Your task to perform on an android device: turn on improve location accuracy Image 0: 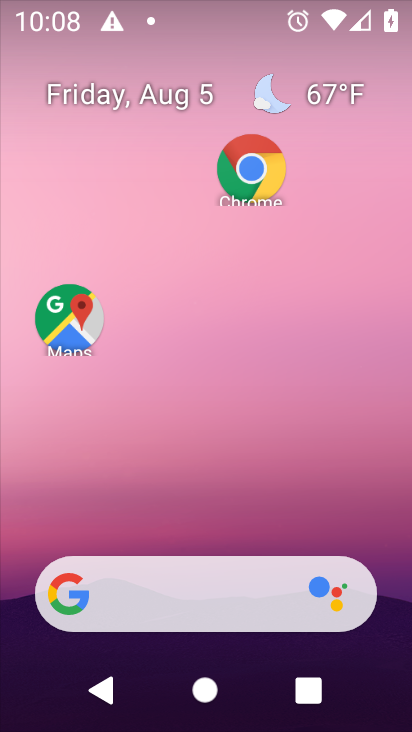
Step 0: drag from (203, 519) to (170, 148)
Your task to perform on an android device: turn on improve location accuracy Image 1: 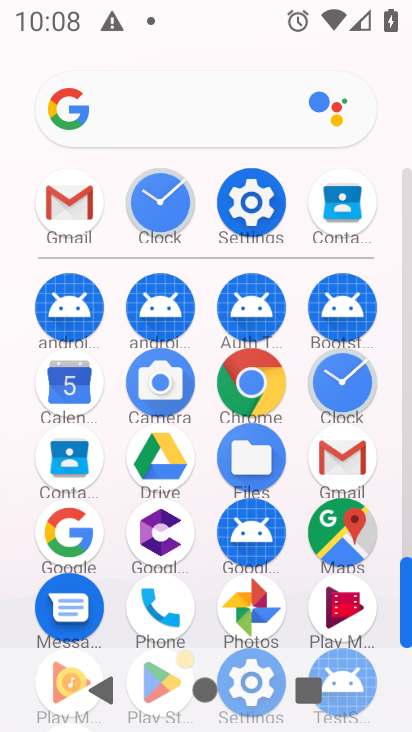
Step 1: click (243, 216)
Your task to perform on an android device: turn on improve location accuracy Image 2: 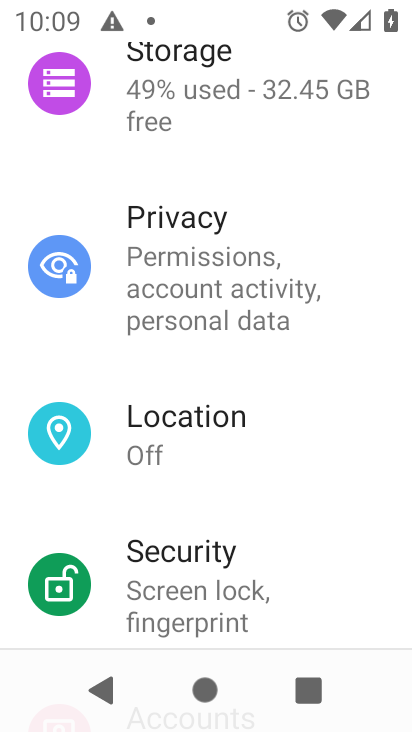
Step 2: click (200, 415)
Your task to perform on an android device: turn on improve location accuracy Image 3: 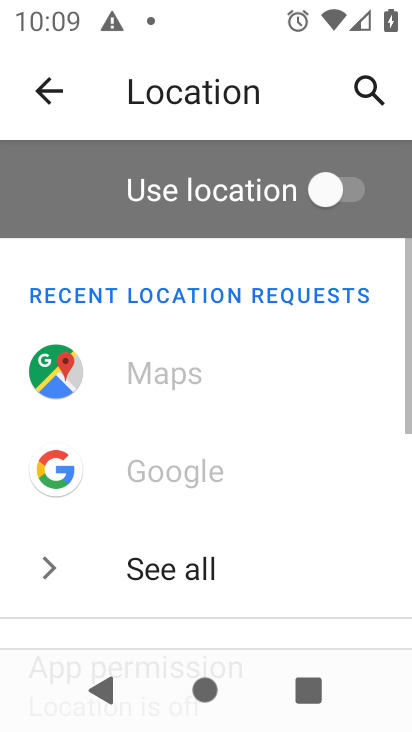
Step 3: drag from (238, 539) to (211, 122)
Your task to perform on an android device: turn on improve location accuracy Image 4: 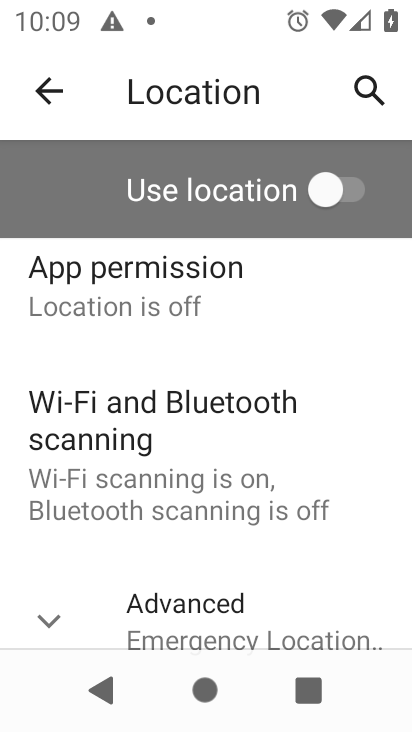
Step 4: drag from (216, 563) to (193, 358)
Your task to perform on an android device: turn on improve location accuracy Image 5: 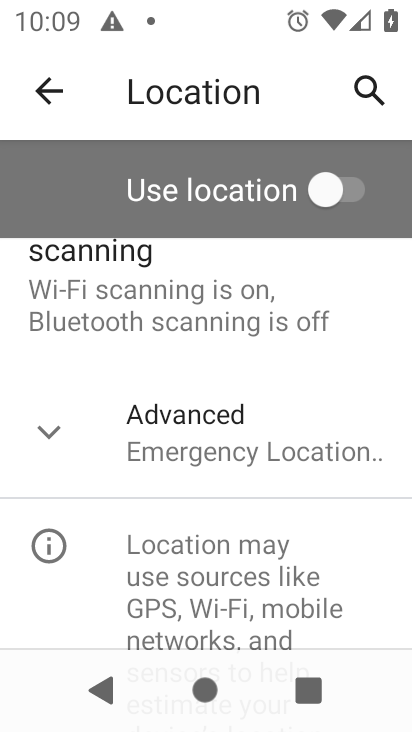
Step 5: click (194, 422)
Your task to perform on an android device: turn on improve location accuracy Image 6: 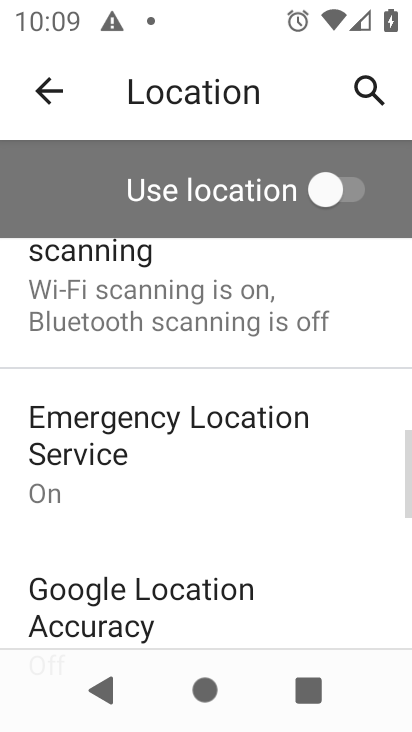
Step 6: drag from (192, 536) to (227, 295)
Your task to perform on an android device: turn on improve location accuracy Image 7: 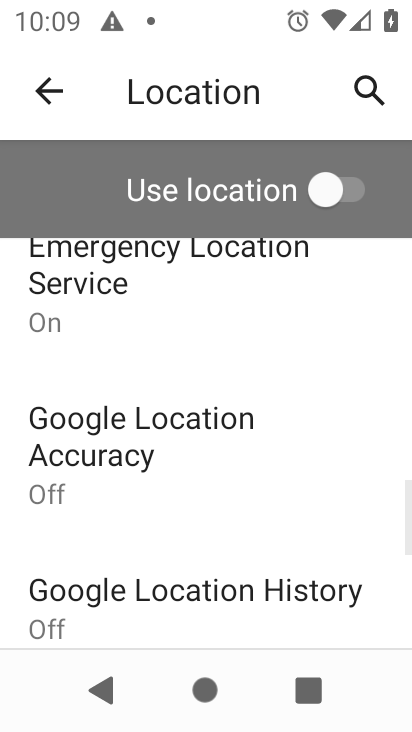
Step 7: click (198, 453)
Your task to perform on an android device: turn on improve location accuracy Image 8: 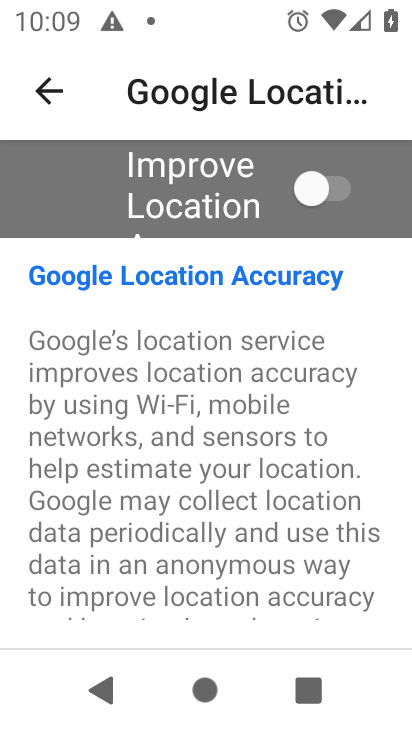
Step 8: click (328, 192)
Your task to perform on an android device: turn on improve location accuracy Image 9: 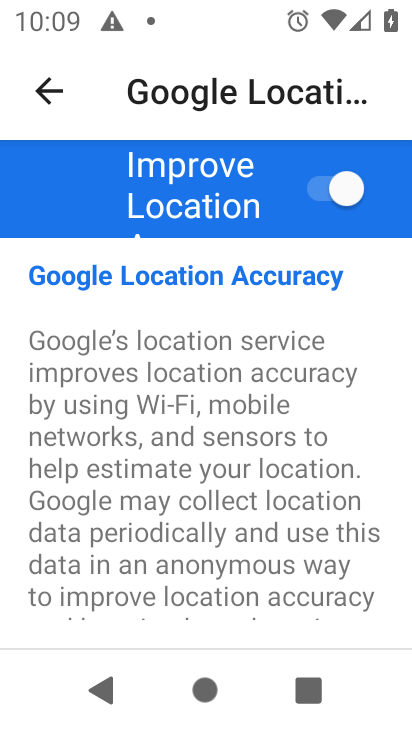
Step 9: task complete